Your task to perform on an android device: toggle improve location accuracy Image 0: 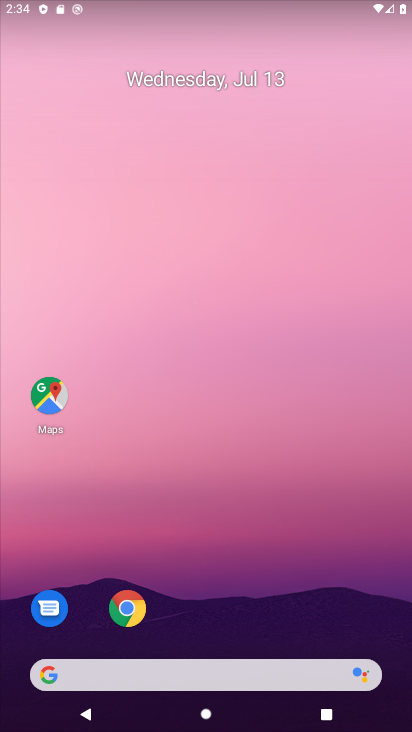
Step 0: drag from (209, 609) to (226, 108)
Your task to perform on an android device: toggle improve location accuracy Image 1: 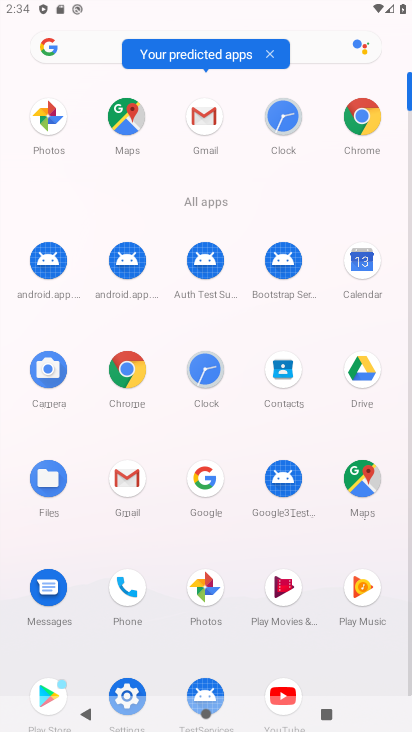
Step 1: click (127, 684)
Your task to perform on an android device: toggle improve location accuracy Image 2: 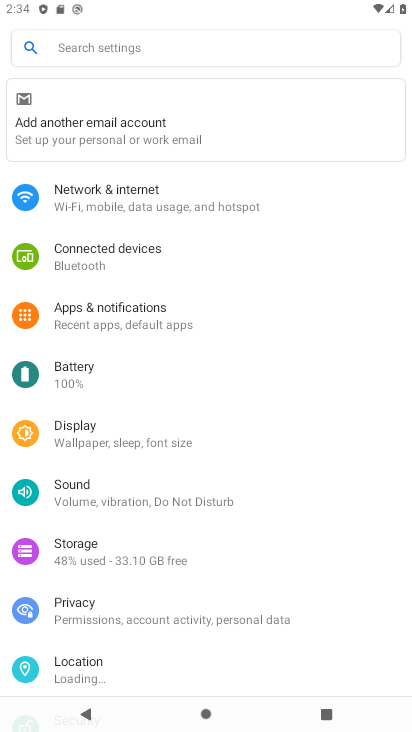
Step 2: click (88, 659)
Your task to perform on an android device: toggle improve location accuracy Image 3: 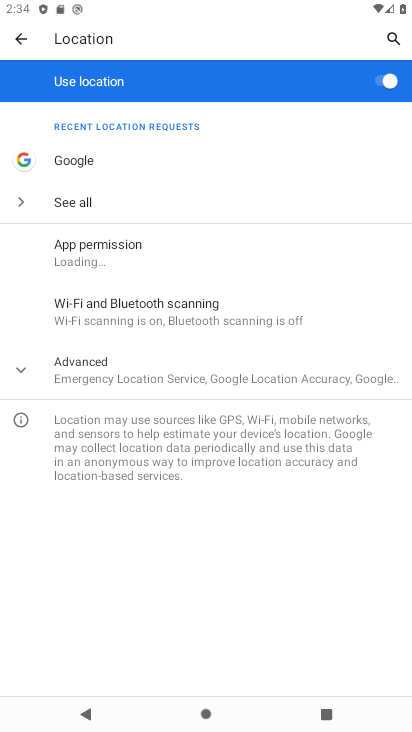
Step 3: click (103, 365)
Your task to perform on an android device: toggle improve location accuracy Image 4: 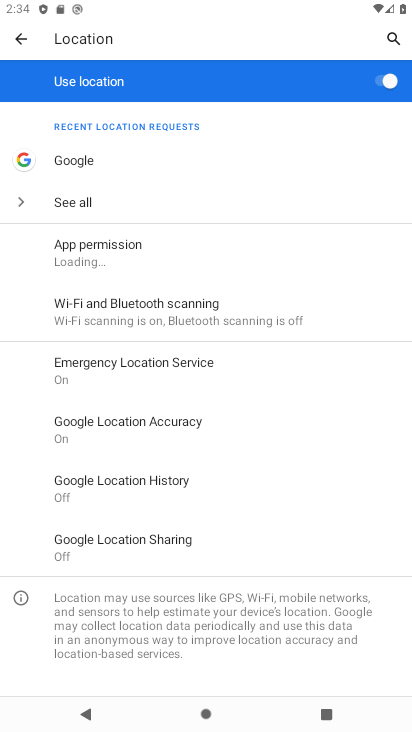
Step 4: click (168, 430)
Your task to perform on an android device: toggle improve location accuracy Image 5: 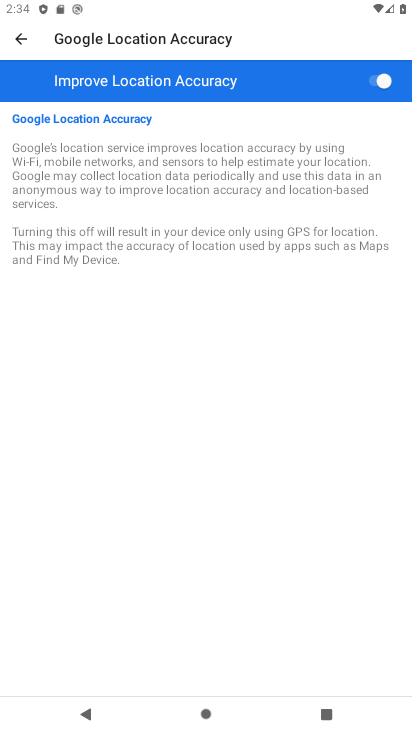
Step 5: click (379, 83)
Your task to perform on an android device: toggle improve location accuracy Image 6: 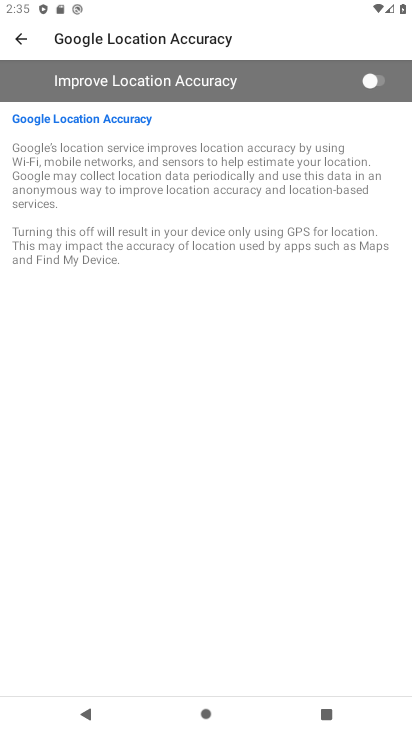
Step 6: task complete